Your task to perform on an android device: Go to Yahoo.com Image 0: 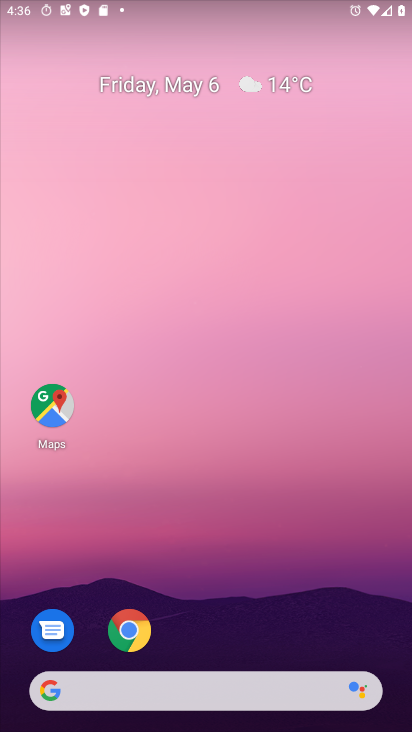
Step 0: click (130, 642)
Your task to perform on an android device: Go to Yahoo.com Image 1: 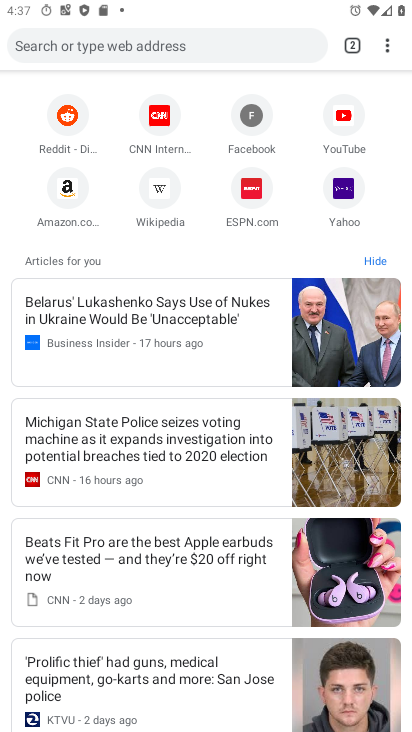
Step 1: click (335, 185)
Your task to perform on an android device: Go to Yahoo.com Image 2: 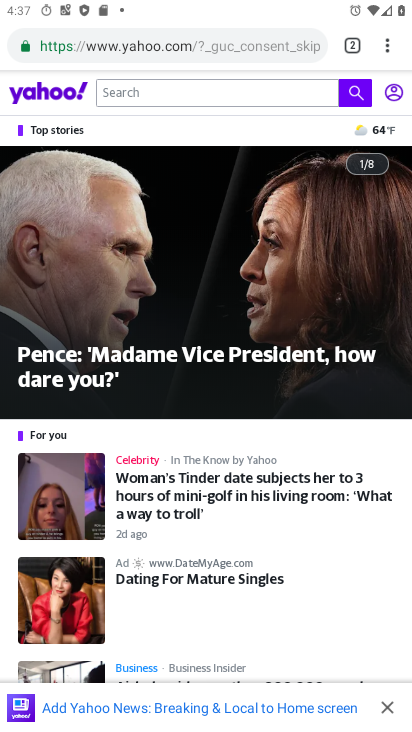
Step 2: task complete